Your task to perform on an android device: Go to privacy settings Image 0: 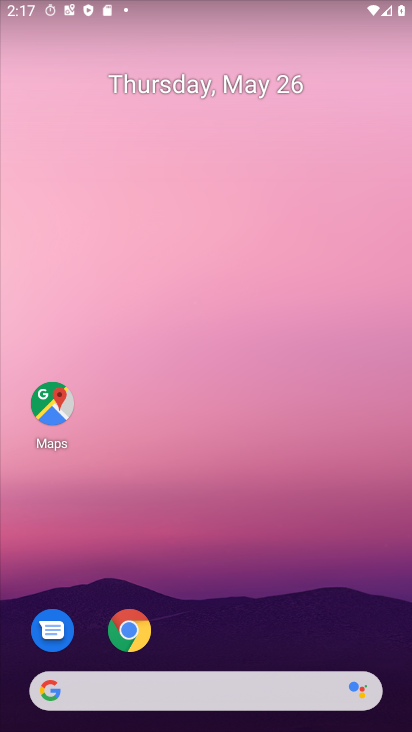
Step 0: drag from (304, 297) to (304, 79)
Your task to perform on an android device: Go to privacy settings Image 1: 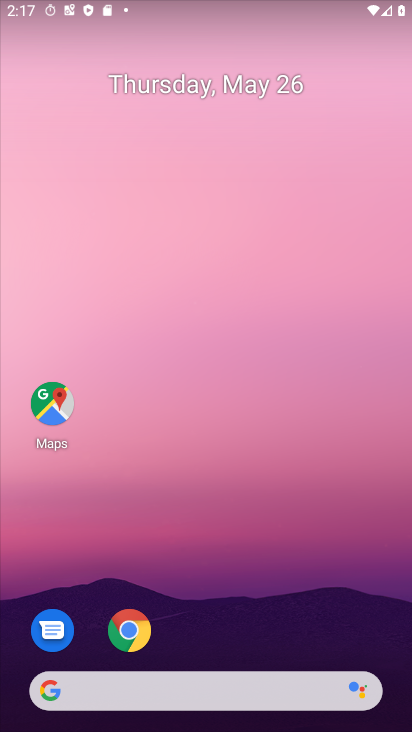
Step 1: drag from (274, 630) to (302, 33)
Your task to perform on an android device: Go to privacy settings Image 2: 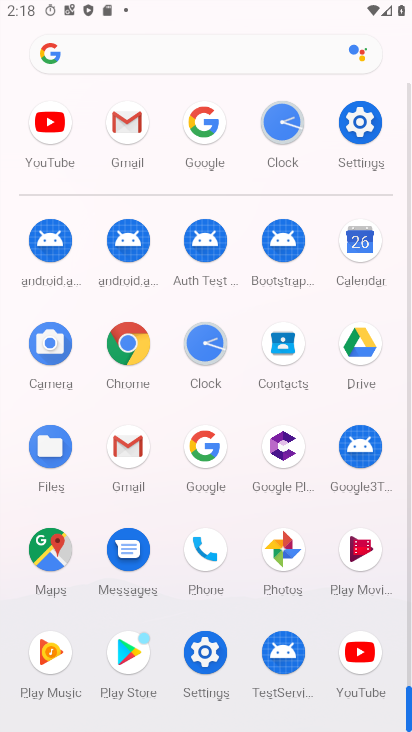
Step 2: click (352, 115)
Your task to perform on an android device: Go to privacy settings Image 3: 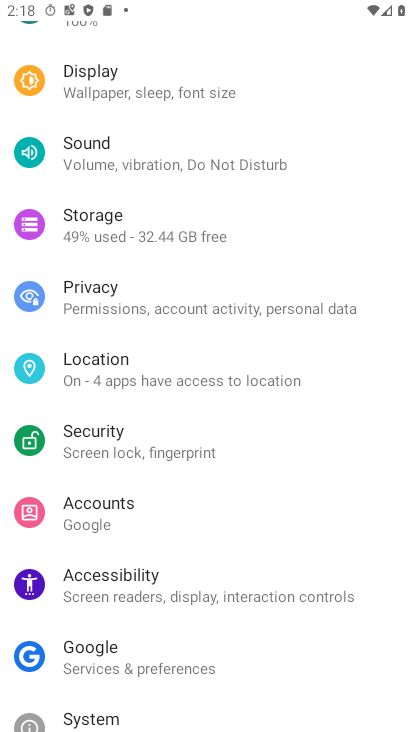
Step 3: click (241, 309)
Your task to perform on an android device: Go to privacy settings Image 4: 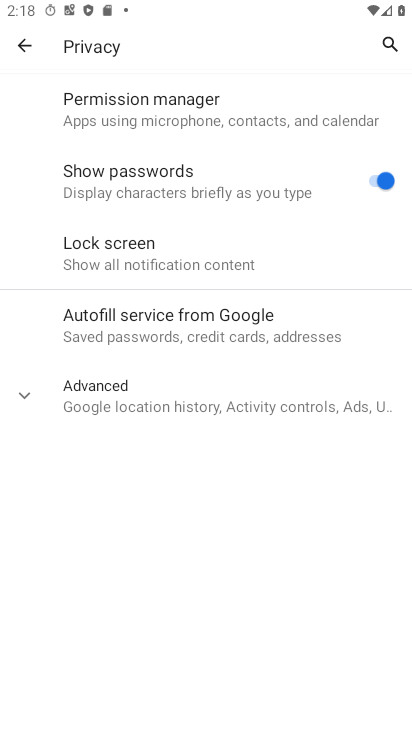
Step 4: task complete